Your task to perform on an android device: stop showing notifications on the lock screen Image 0: 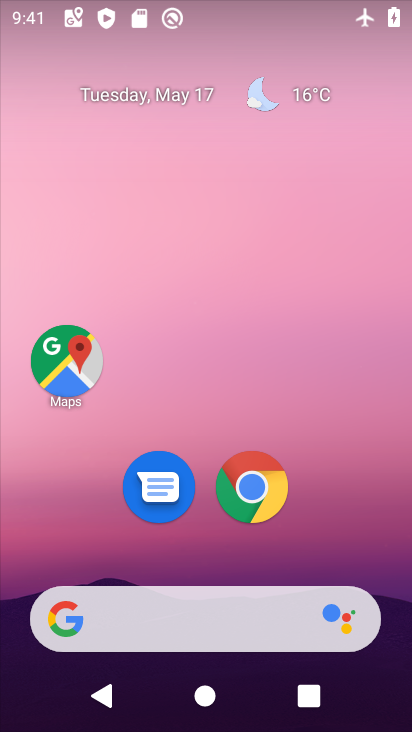
Step 0: drag from (198, 559) to (260, 0)
Your task to perform on an android device: stop showing notifications on the lock screen Image 1: 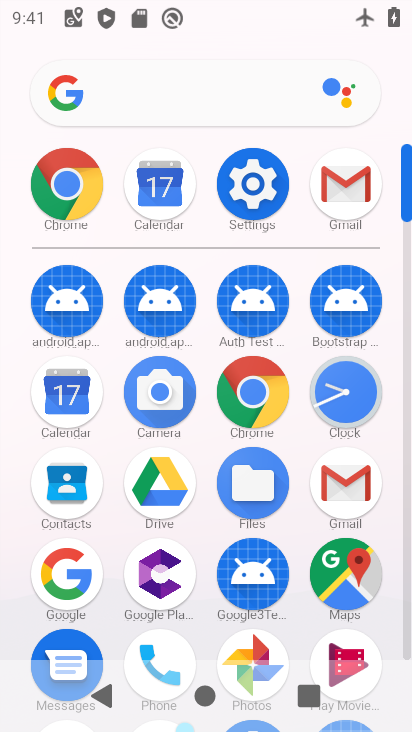
Step 1: click (261, 202)
Your task to perform on an android device: stop showing notifications on the lock screen Image 2: 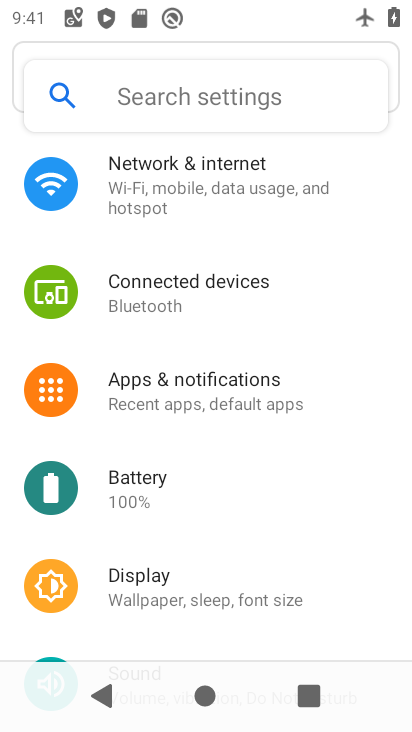
Step 2: click (207, 401)
Your task to perform on an android device: stop showing notifications on the lock screen Image 3: 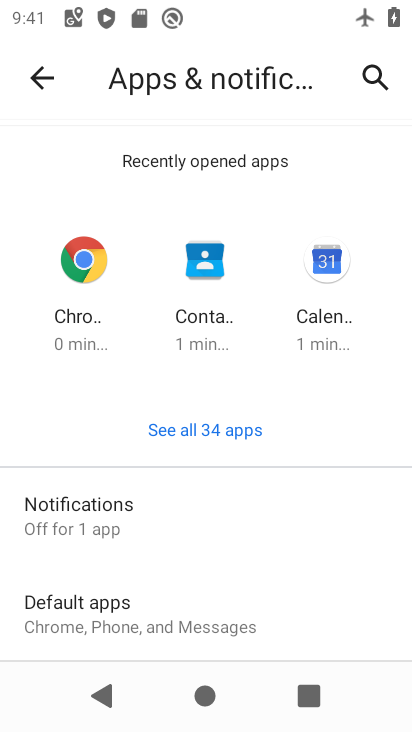
Step 3: drag from (153, 515) to (220, 290)
Your task to perform on an android device: stop showing notifications on the lock screen Image 4: 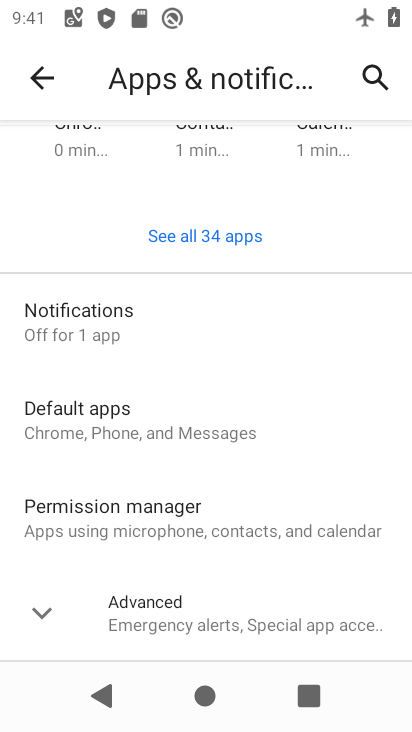
Step 4: click (47, 608)
Your task to perform on an android device: stop showing notifications on the lock screen Image 5: 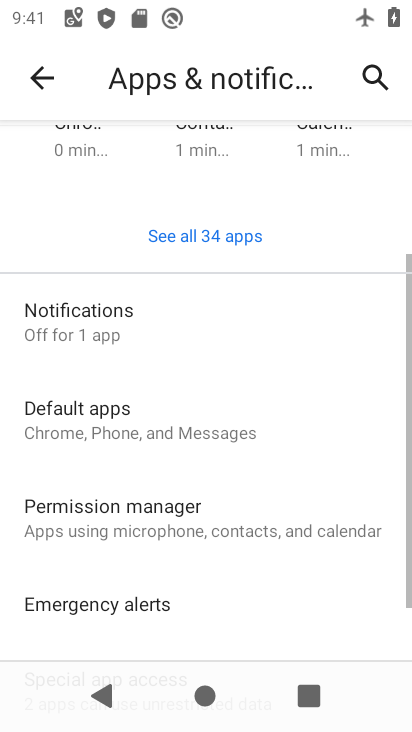
Step 5: drag from (190, 625) to (217, 342)
Your task to perform on an android device: stop showing notifications on the lock screen Image 6: 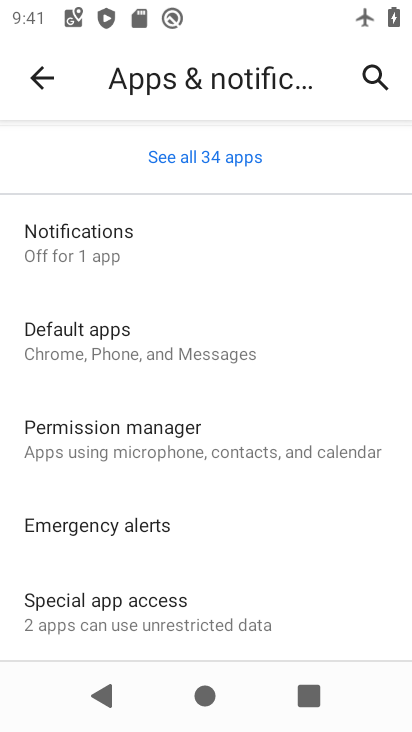
Step 6: click (126, 257)
Your task to perform on an android device: stop showing notifications on the lock screen Image 7: 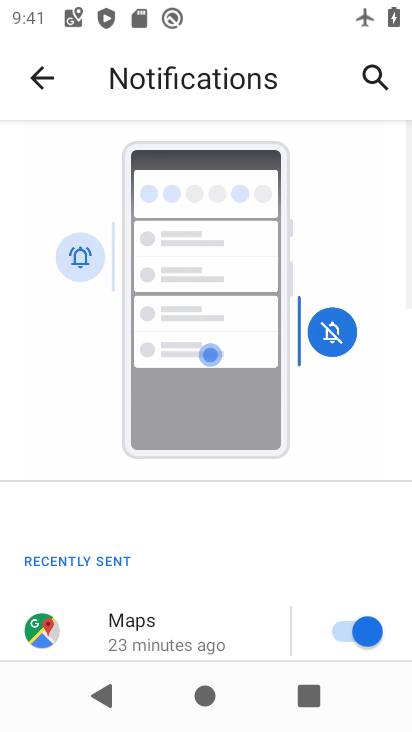
Step 7: drag from (140, 585) to (190, 308)
Your task to perform on an android device: stop showing notifications on the lock screen Image 8: 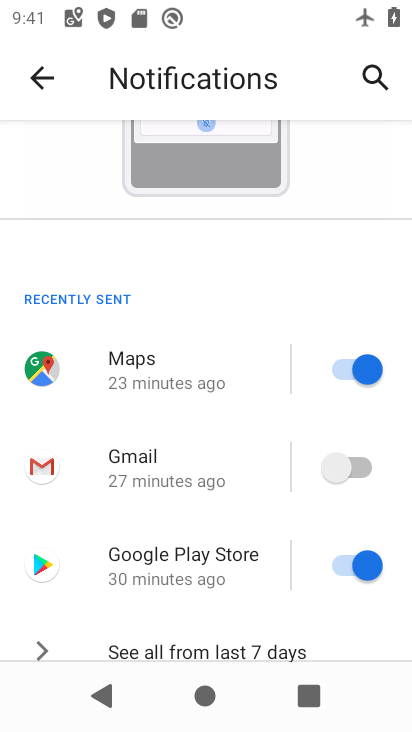
Step 8: drag from (180, 546) to (209, 343)
Your task to perform on an android device: stop showing notifications on the lock screen Image 9: 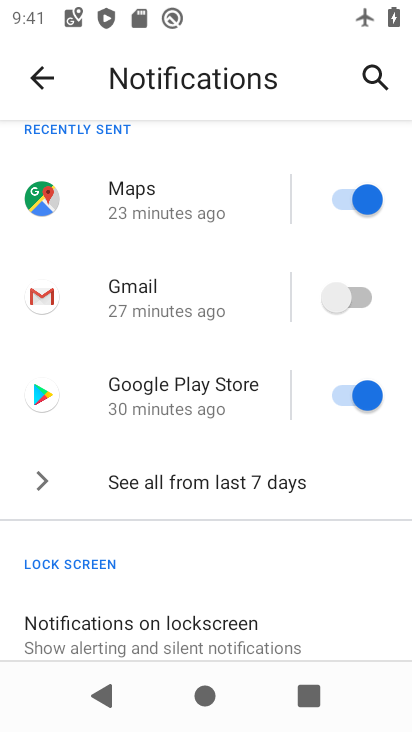
Step 9: drag from (168, 565) to (201, 348)
Your task to perform on an android device: stop showing notifications on the lock screen Image 10: 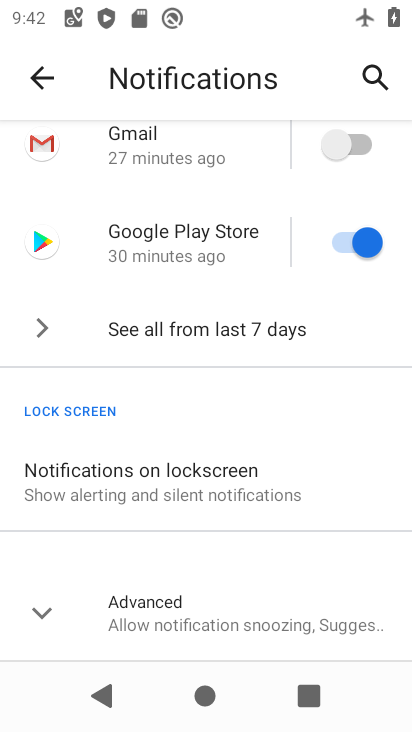
Step 10: click (166, 470)
Your task to perform on an android device: stop showing notifications on the lock screen Image 11: 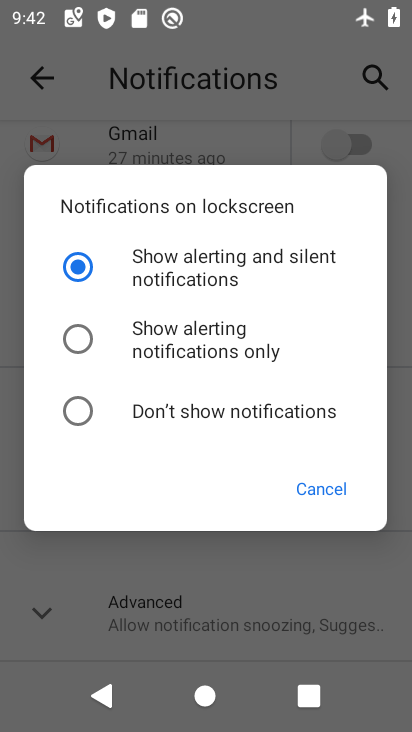
Step 11: click (154, 415)
Your task to perform on an android device: stop showing notifications on the lock screen Image 12: 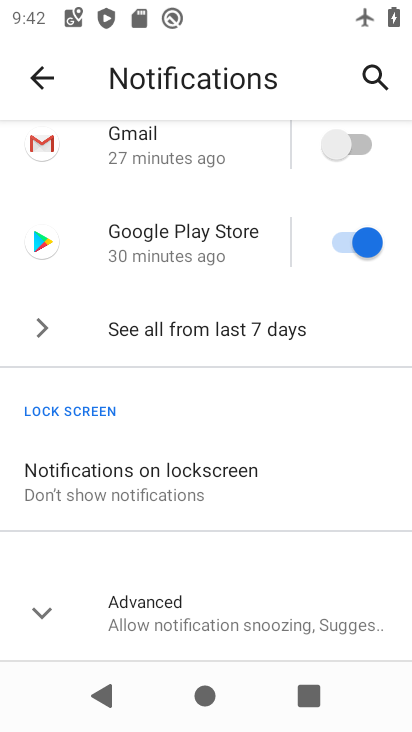
Step 12: task complete